Your task to perform on an android device: Go to Amazon Image 0: 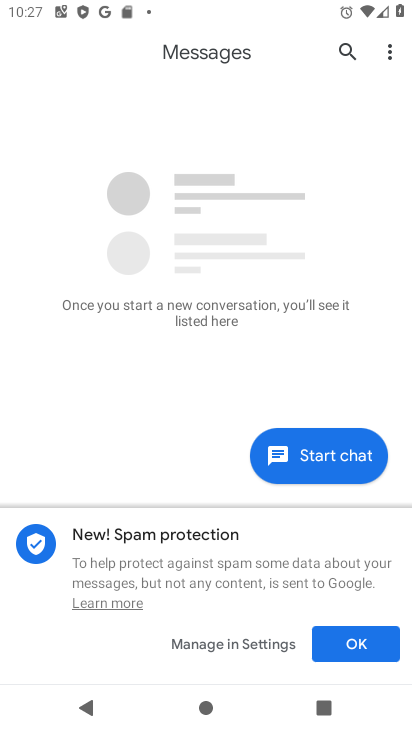
Step 0: press home button
Your task to perform on an android device: Go to Amazon Image 1: 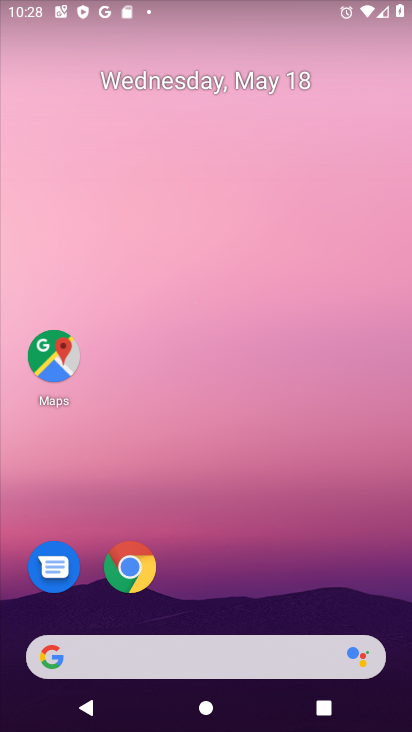
Step 1: click (121, 561)
Your task to perform on an android device: Go to Amazon Image 2: 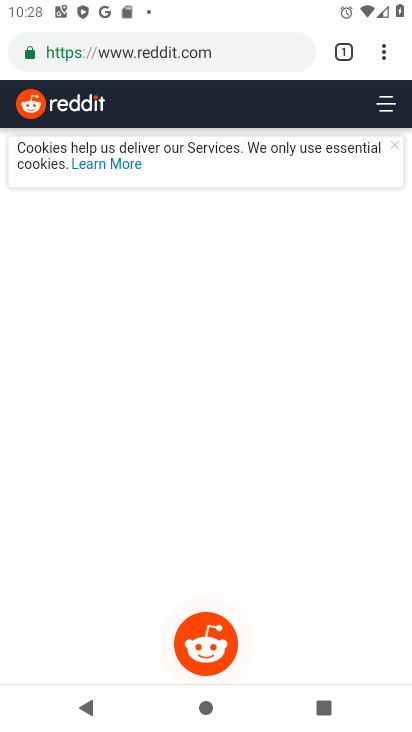
Step 2: click (186, 54)
Your task to perform on an android device: Go to Amazon Image 3: 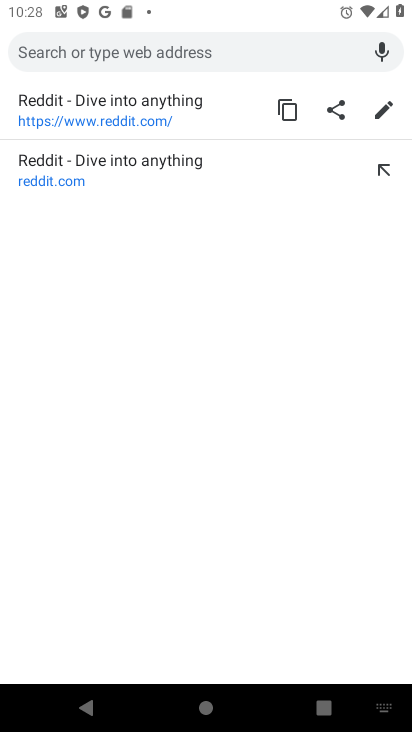
Step 3: type "amazon"
Your task to perform on an android device: Go to Amazon Image 4: 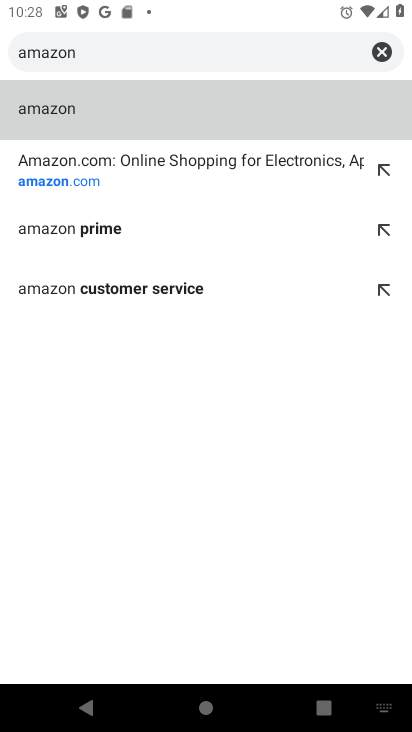
Step 4: click (53, 169)
Your task to perform on an android device: Go to Amazon Image 5: 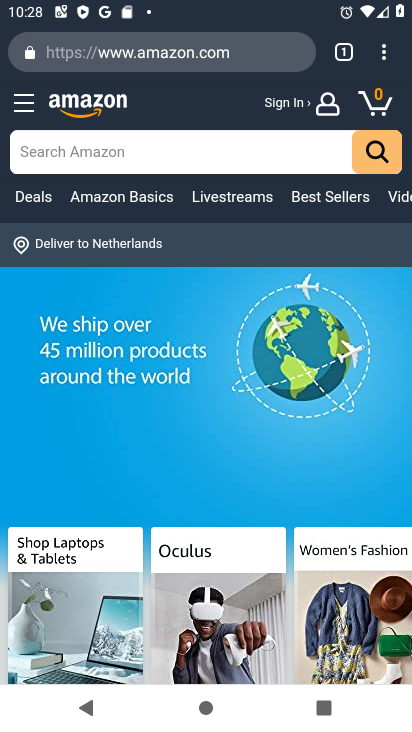
Step 5: task complete